Your task to perform on an android device: Go to internet settings Image 0: 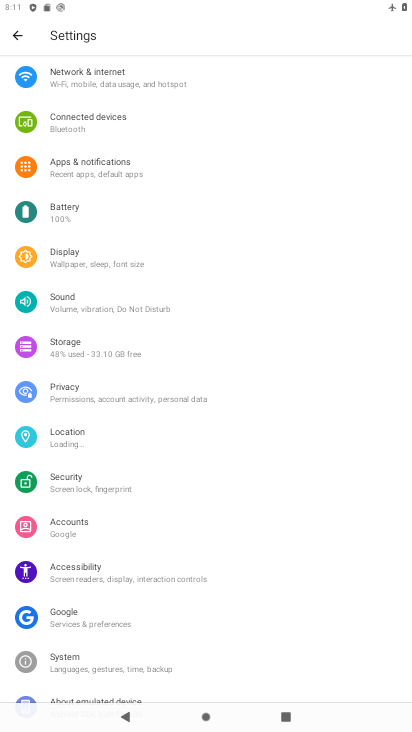
Step 0: press home button
Your task to perform on an android device: Go to internet settings Image 1: 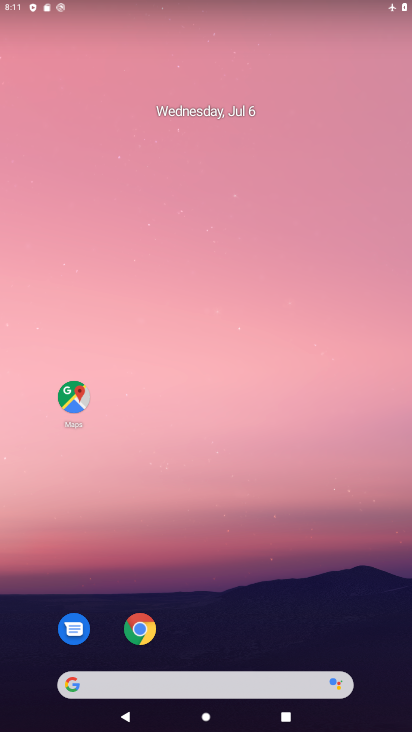
Step 1: drag from (1, 715) to (411, 164)
Your task to perform on an android device: Go to internet settings Image 2: 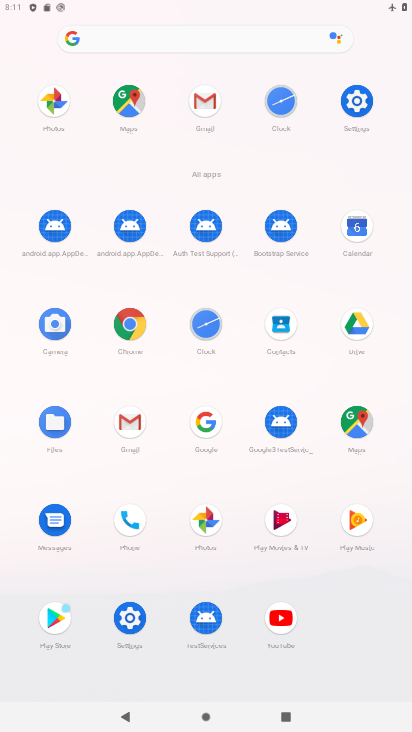
Step 2: click (345, 104)
Your task to perform on an android device: Go to internet settings Image 3: 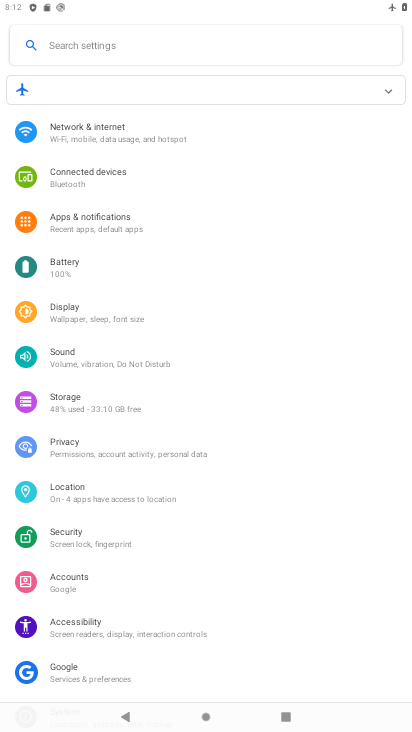
Step 3: click (389, 89)
Your task to perform on an android device: Go to internet settings Image 4: 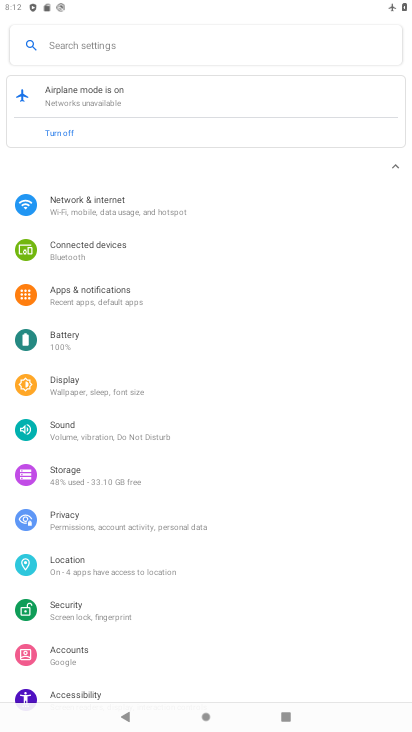
Step 4: click (49, 133)
Your task to perform on an android device: Go to internet settings Image 5: 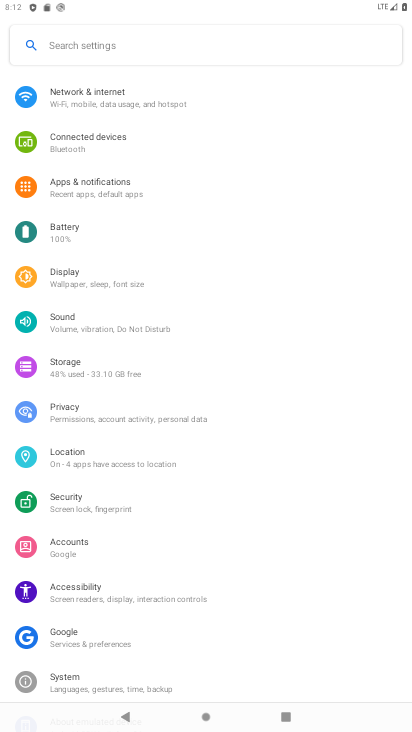
Step 5: click (115, 97)
Your task to perform on an android device: Go to internet settings Image 6: 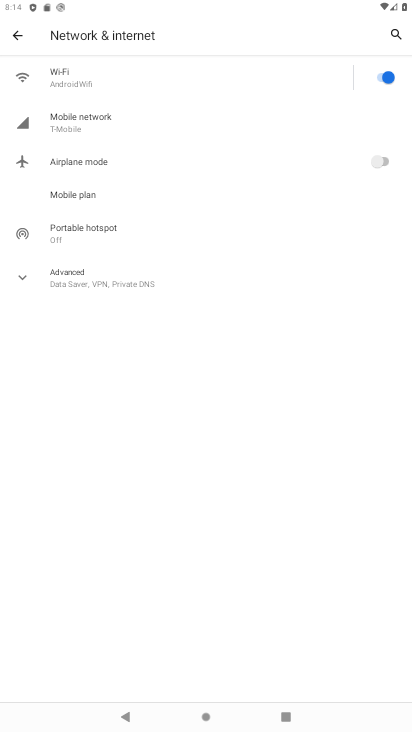
Step 6: click (110, 122)
Your task to perform on an android device: Go to internet settings Image 7: 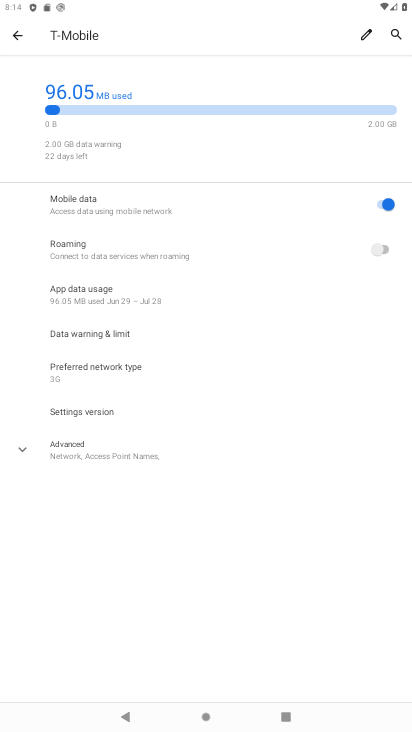
Step 7: task complete